Your task to perform on an android device: Open calendar and show me the fourth week of next month Image 0: 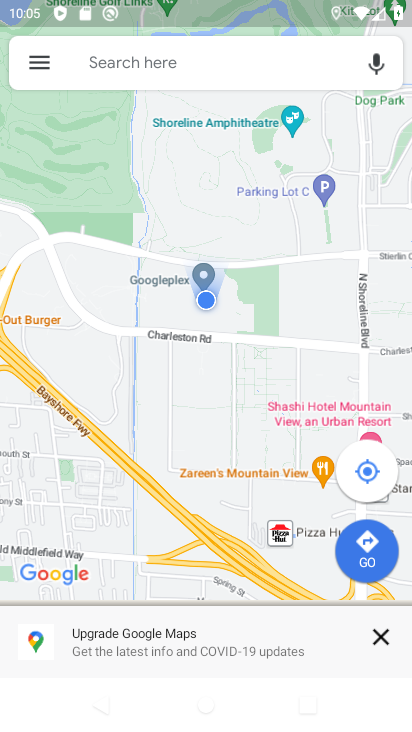
Step 0: press home button
Your task to perform on an android device: Open calendar and show me the fourth week of next month Image 1: 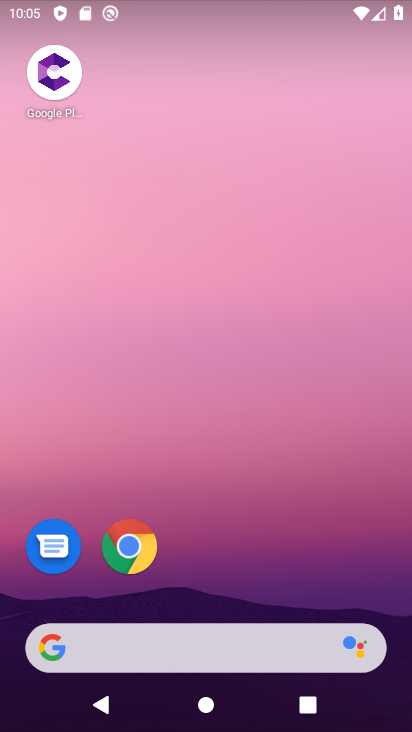
Step 1: drag from (148, 725) to (194, 171)
Your task to perform on an android device: Open calendar and show me the fourth week of next month Image 2: 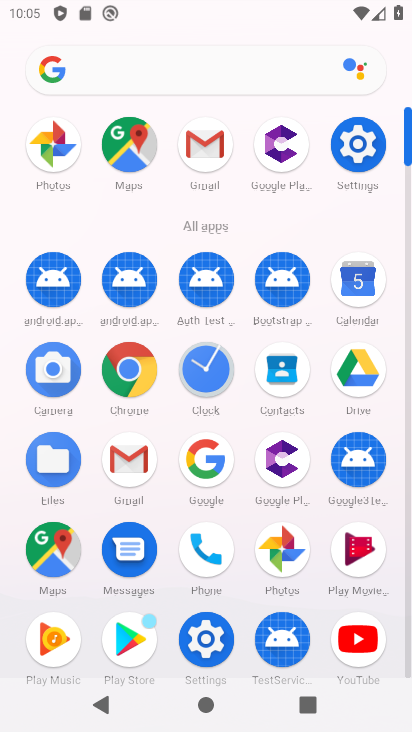
Step 2: click (361, 291)
Your task to perform on an android device: Open calendar and show me the fourth week of next month Image 3: 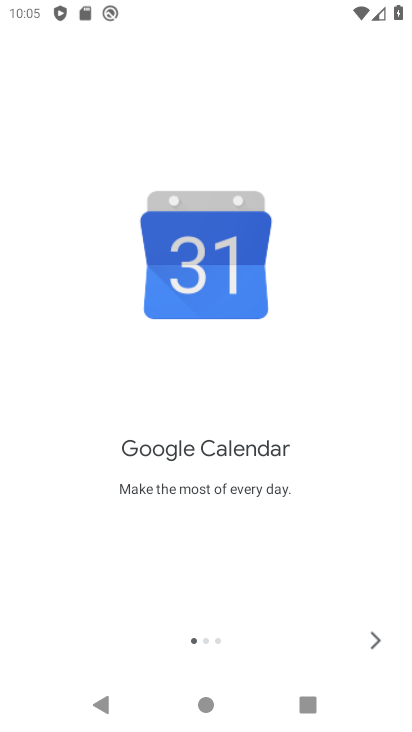
Step 3: click (376, 635)
Your task to perform on an android device: Open calendar and show me the fourth week of next month Image 4: 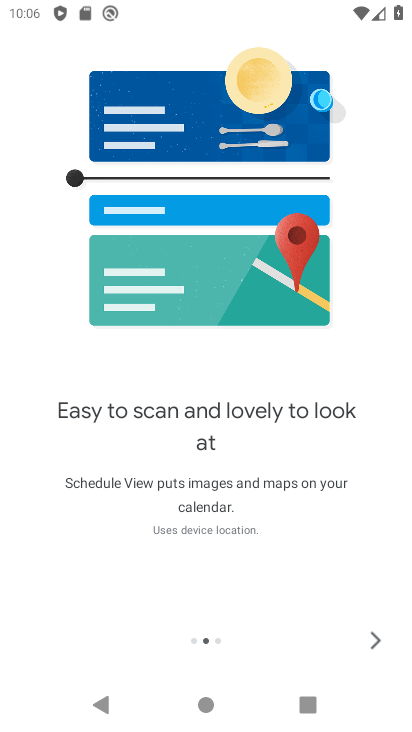
Step 4: click (376, 635)
Your task to perform on an android device: Open calendar and show me the fourth week of next month Image 5: 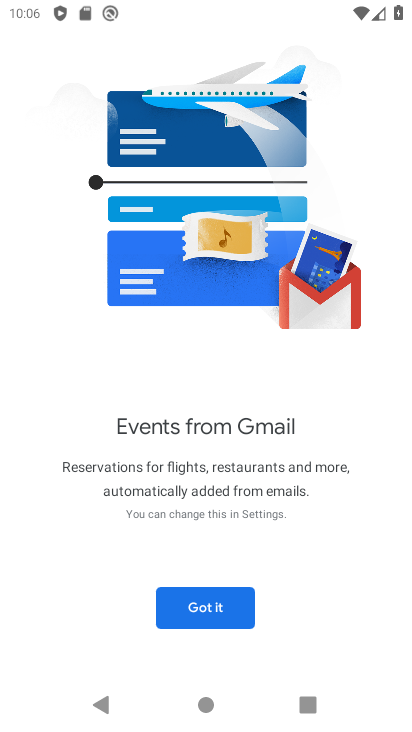
Step 5: click (221, 620)
Your task to perform on an android device: Open calendar and show me the fourth week of next month Image 6: 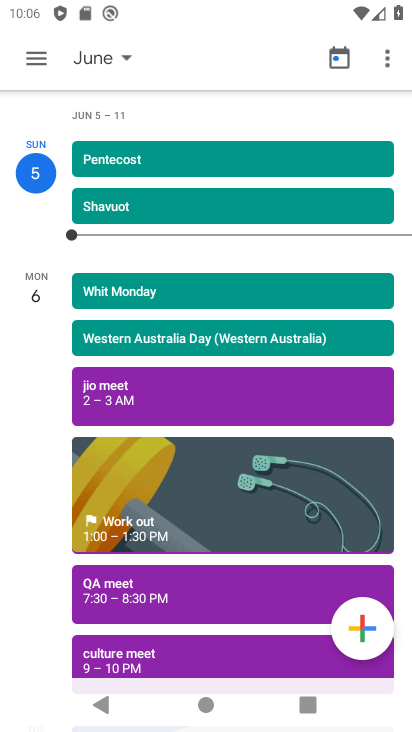
Step 6: click (94, 64)
Your task to perform on an android device: Open calendar and show me the fourth week of next month Image 7: 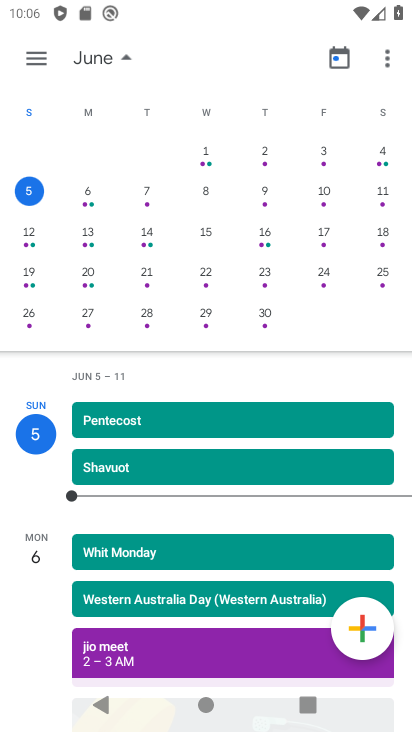
Step 7: click (122, 61)
Your task to perform on an android device: Open calendar and show me the fourth week of next month Image 8: 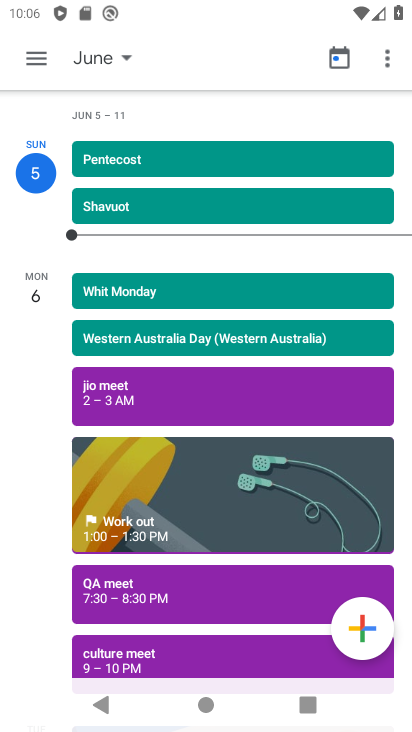
Step 8: click (43, 51)
Your task to perform on an android device: Open calendar and show me the fourth week of next month Image 9: 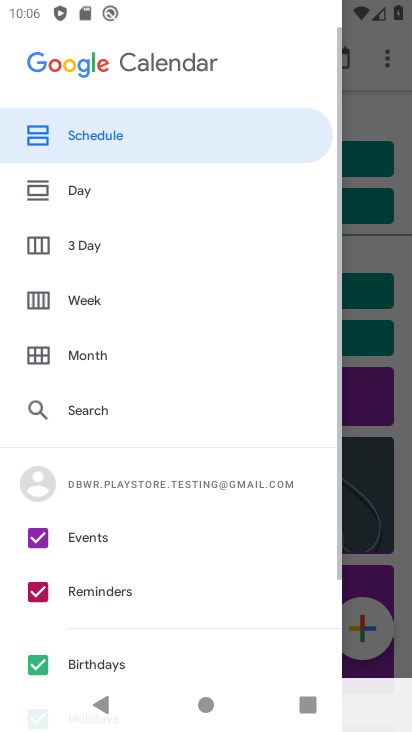
Step 9: click (67, 296)
Your task to perform on an android device: Open calendar and show me the fourth week of next month Image 10: 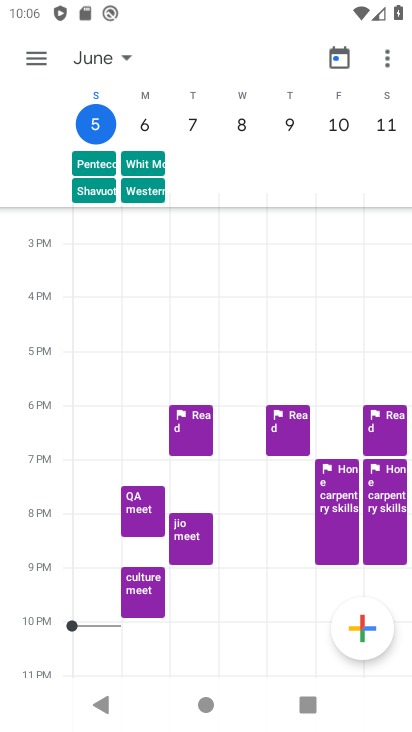
Step 10: click (120, 59)
Your task to perform on an android device: Open calendar and show me the fourth week of next month Image 11: 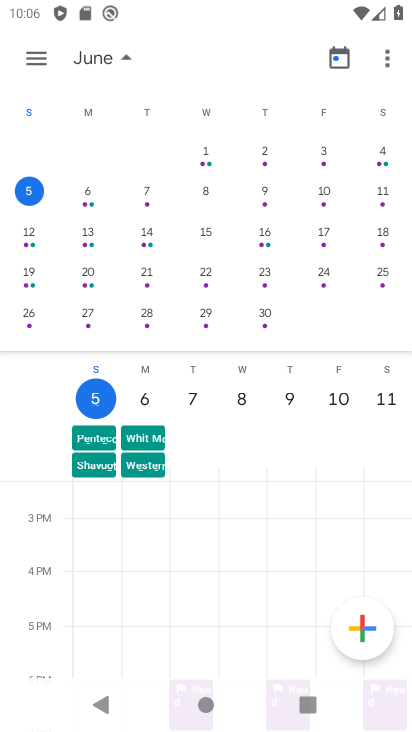
Step 11: drag from (375, 325) to (14, 184)
Your task to perform on an android device: Open calendar and show me the fourth week of next month Image 12: 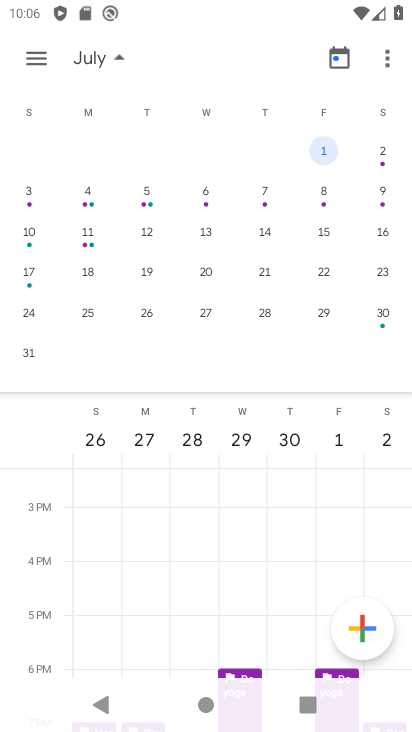
Step 12: click (111, 62)
Your task to perform on an android device: Open calendar and show me the fourth week of next month Image 13: 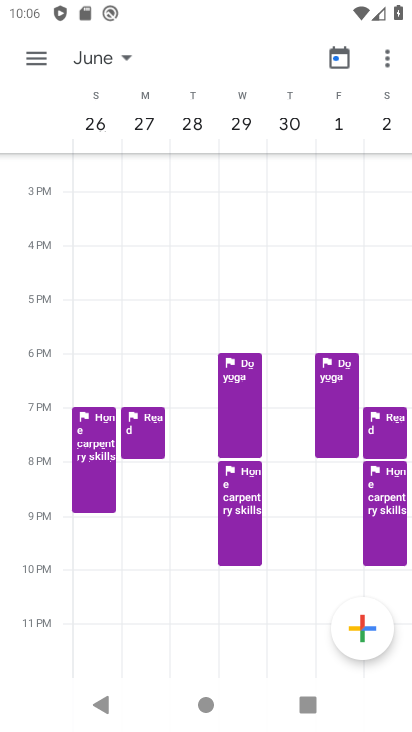
Step 13: task complete